Your task to perform on an android device: Go to ESPN.com Image 0: 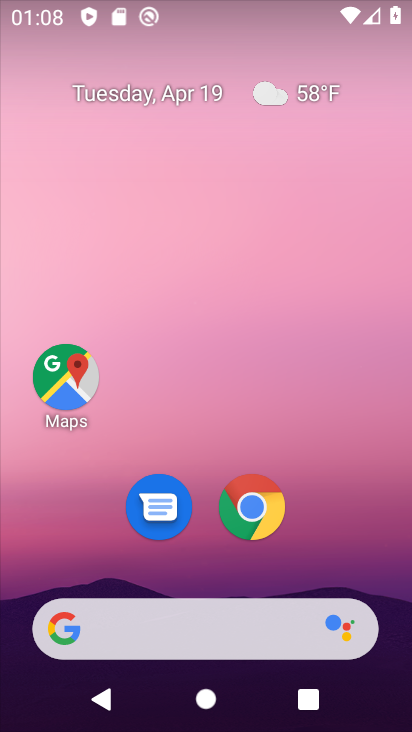
Step 0: click (256, 508)
Your task to perform on an android device: Go to ESPN.com Image 1: 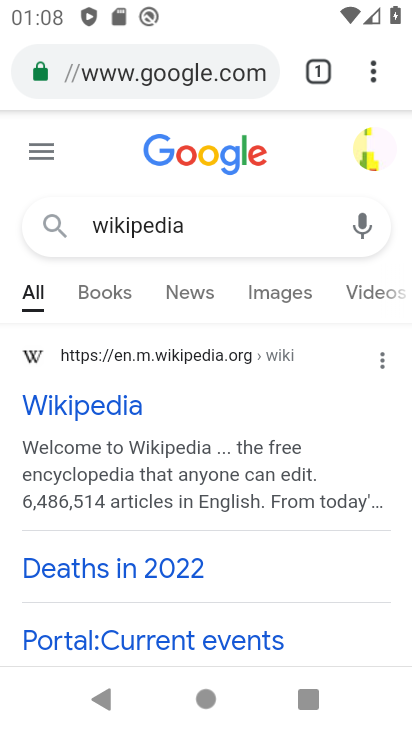
Step 1: click (209, 141)
Your task to perform on an android device: Go to ESPN.com Image 2: 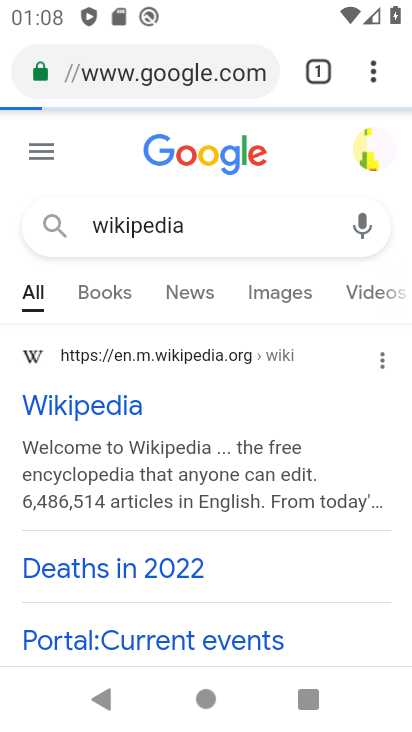
Step 2: click (187, 87)
Your task to perform on an android device: Go to ESPN.com Image 3: 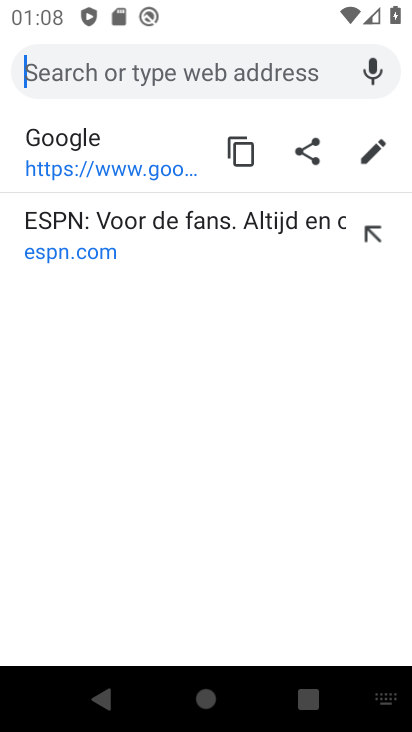
Step 3: type "ESPN.com"
Your task to perform on an android device: Go to ESPN.com Image 4: 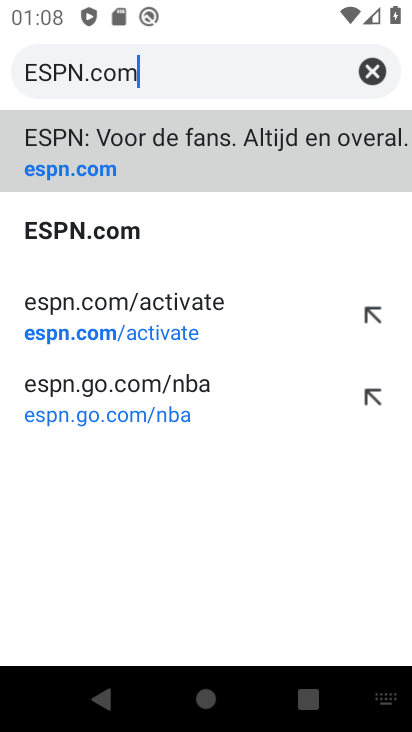
Step 4: click (85, 248)
Your task to perform on an android device: Go to ESPN.com Image 5: 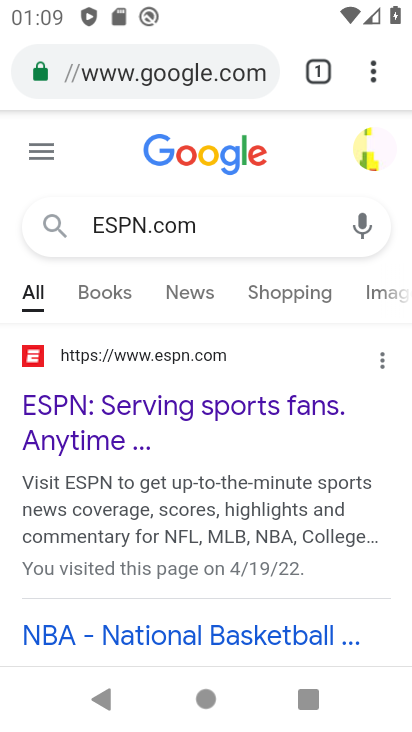
Step 5: task complete